Your task to perform on an android device: change timer sound Image 0: 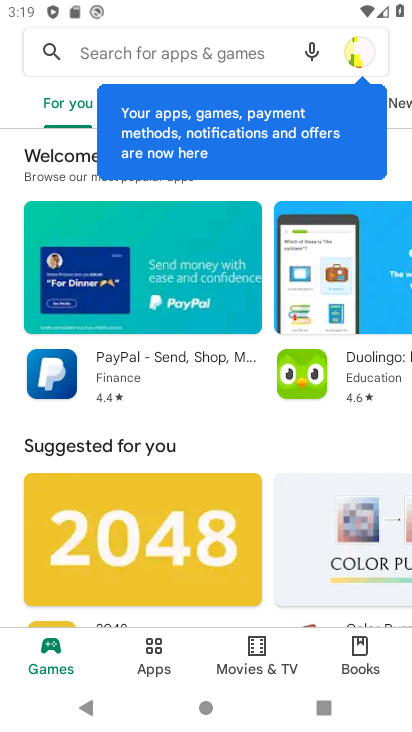
Step 0: press home button
Your task to perform on an android device: change timer sound Image 1: 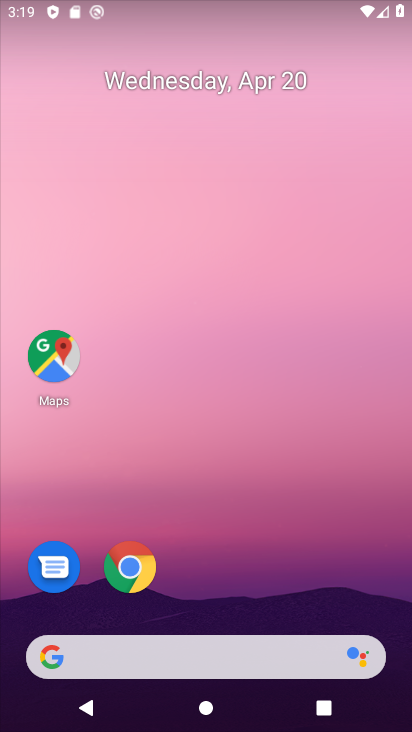
Step 1: drag from (376, 587) to (227, 55)
Your task to perform on an android device: change timer sound Image 2: 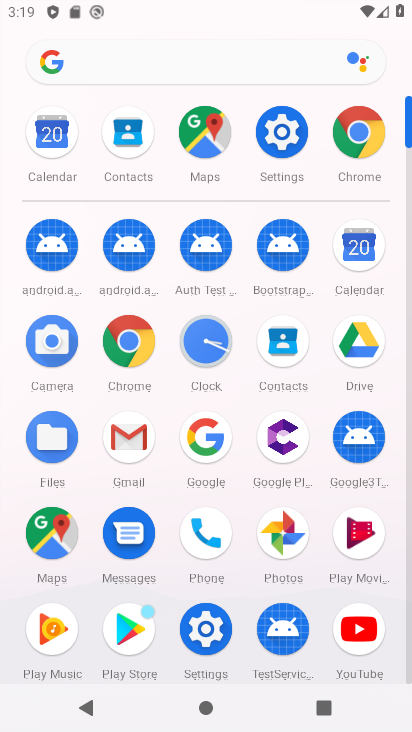
Step 2: click (215, 336)
Your task to perform on an android device: change timer sound Image 3: 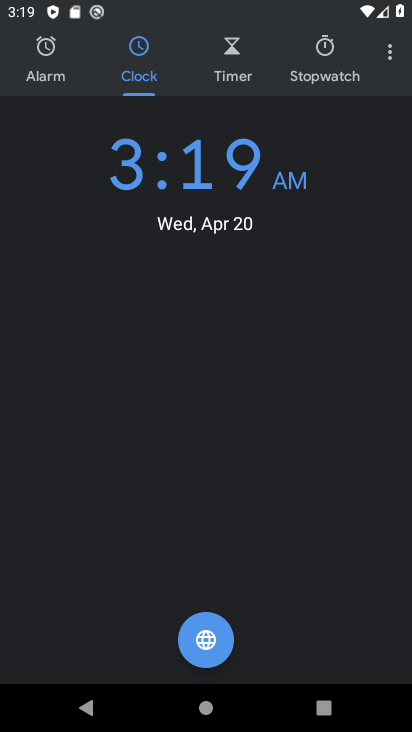
Step 3: click (387, 63)
Your task to perform on an android device: change timer sound Image 4: 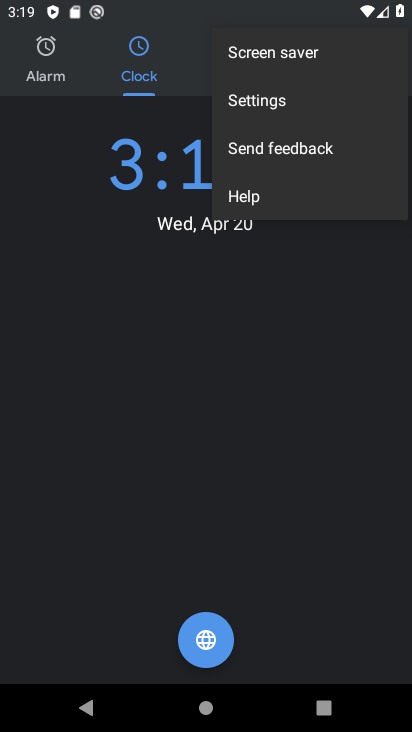
Step 4: click (370, 102)
Your task to perform on an android device: change timer sound Image 5: 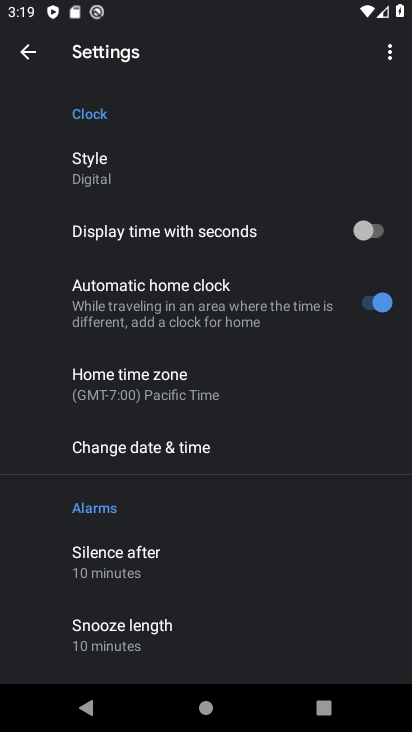
Step 5: drag from (284, 594) to (205, 225)
Your task to perform on an android device: change timer sound Image 6: 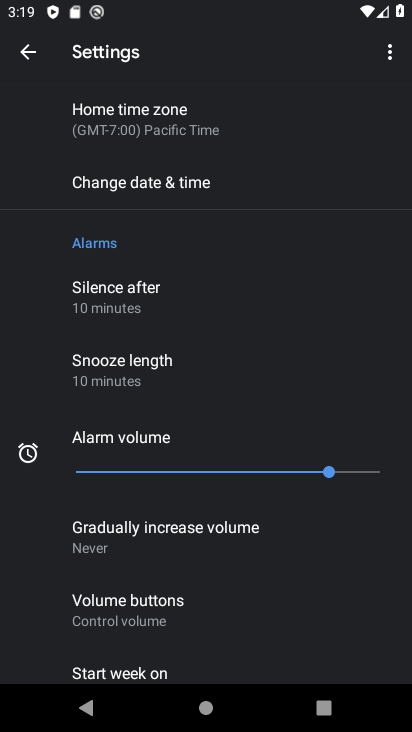
Step 6: drag from (254, 621) to (213, 300)
Your task to perform on an android device: change timer sound Image 7: 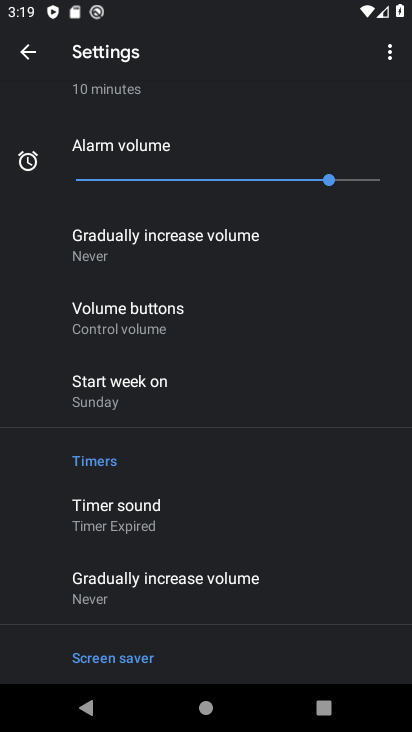
Step 7: click (226, 535)
Your task to perform on an android device: change timer sound Image 8: 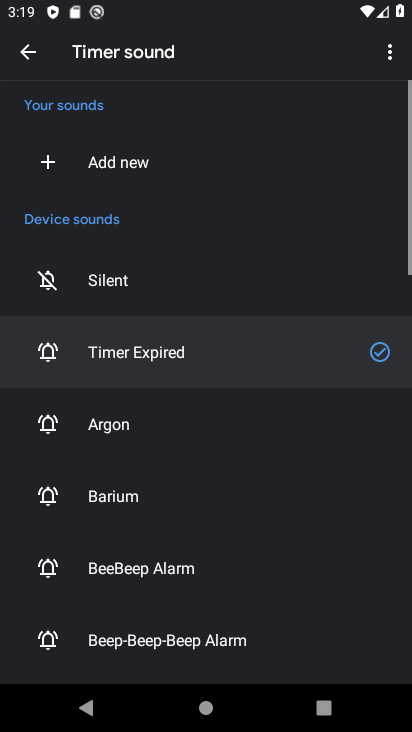
Step 8: click (230, 582)
Your task to perform on an android device: change timer sound Image 9: 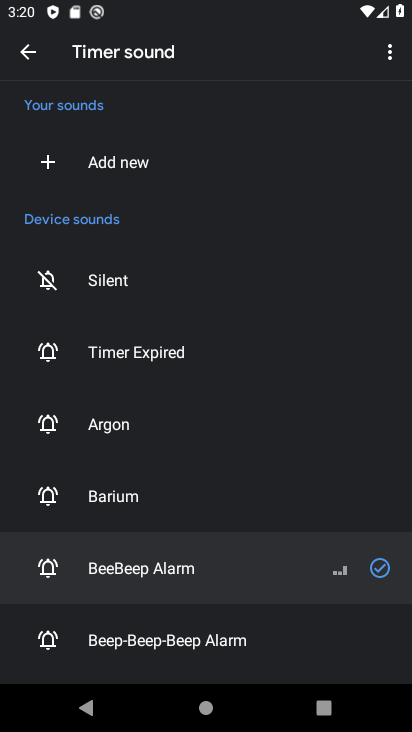
Step 9: task complete